Your task to perform on an android device: search for starred emails in the gmail app Image 0: 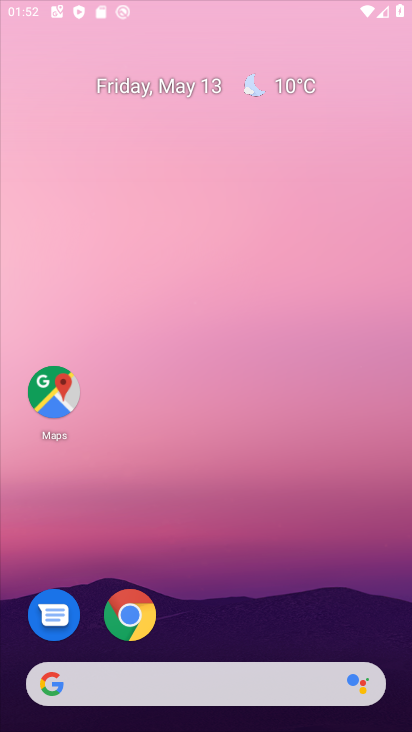
Step 0: click (160, 78)
Your task to perform on an android device: search for starred emails in the gmail app Image 1: 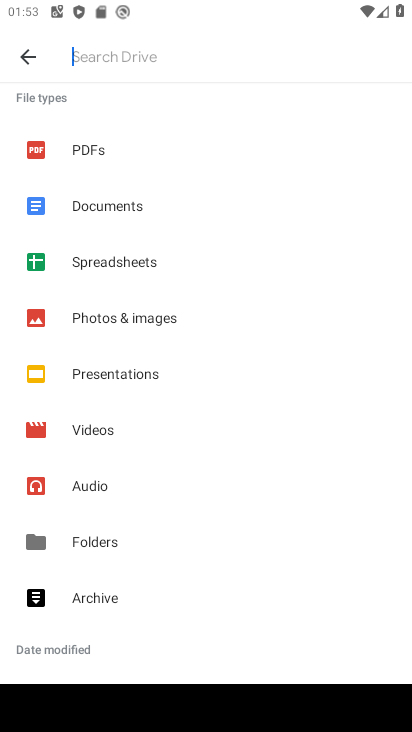
Step 1: press home button
Your task to perform on an android device: search for starred emails in the gmail app Image 2: 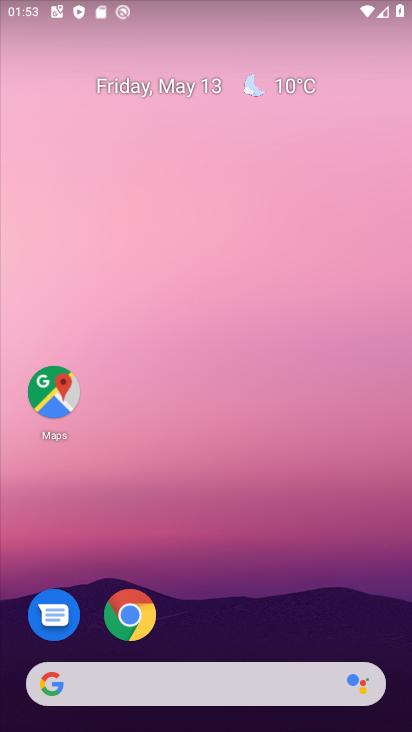
Step 2: drag from (218, 558) to (218, 132)
Your task to perform on an android device: search for starred emails in the gmail app Image 3: 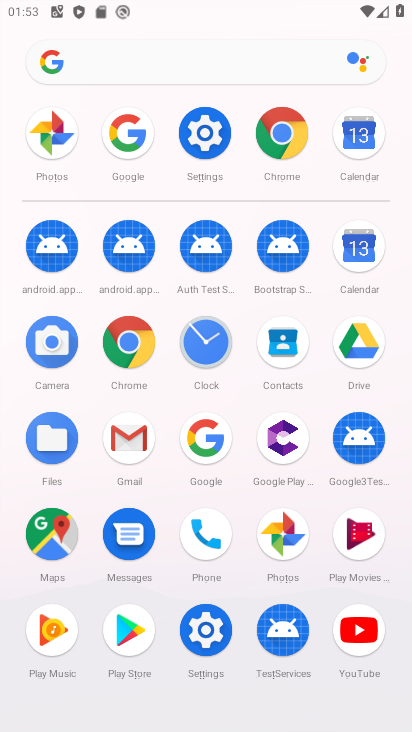
Step 3: click (131, 447)
Your task to perform on an android device: search for starred emails in the gmail app Image 4: 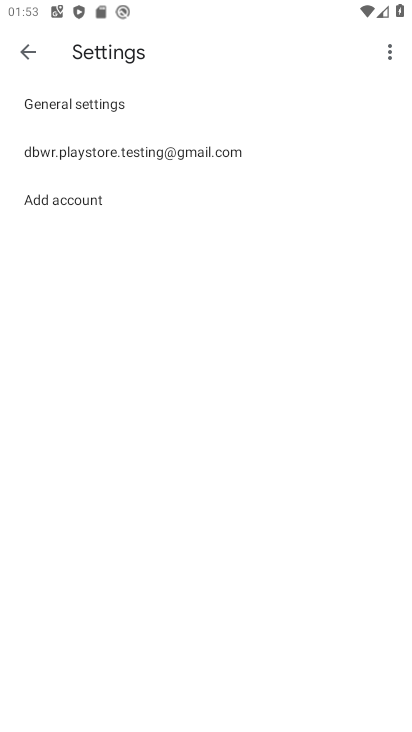
Step 4: click (31, 54)
Your task to perform on an android device: search for starred emails in the gmail app Image 5: 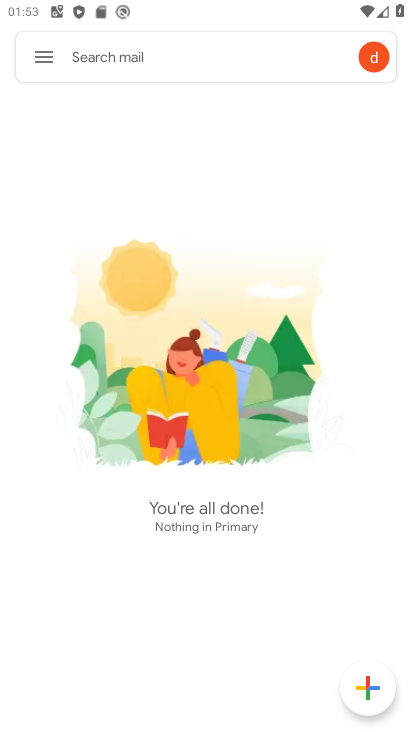
Step 5: click (48, 49)
Your task to perform on an android device: search for starred emails in the gmail app Image 6: 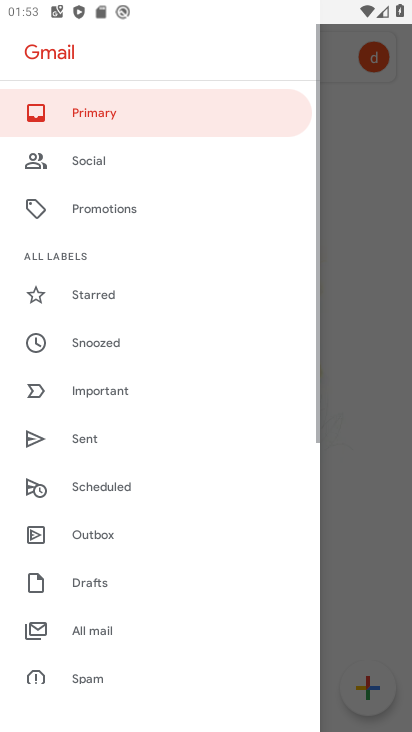
Step 6: click (104, 297)
Your task to perform on an android device: search for starred emails in the gmail app Image 7: 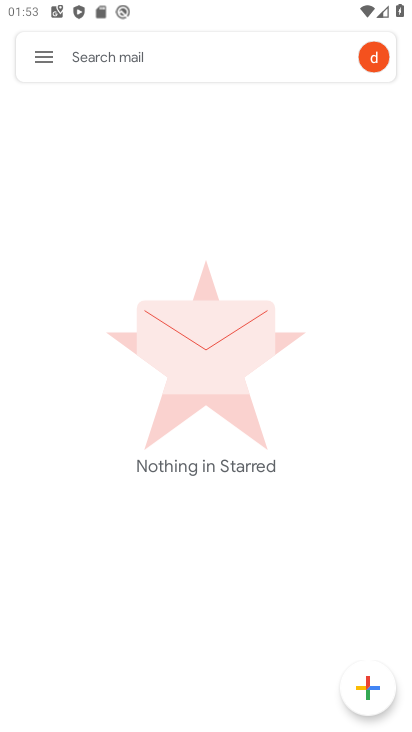
Step 7: task complete